Your task to perform on an android device: create a new album in the google photos Image 0: 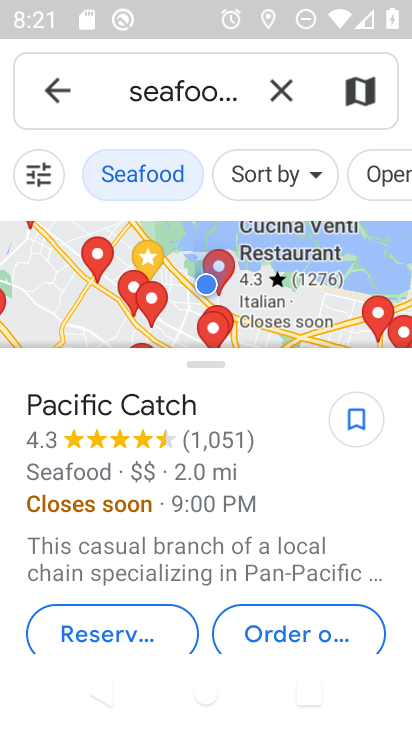
Step 0: press home button
Your task to perform on an android device: create a new album in the google photos Image 1: 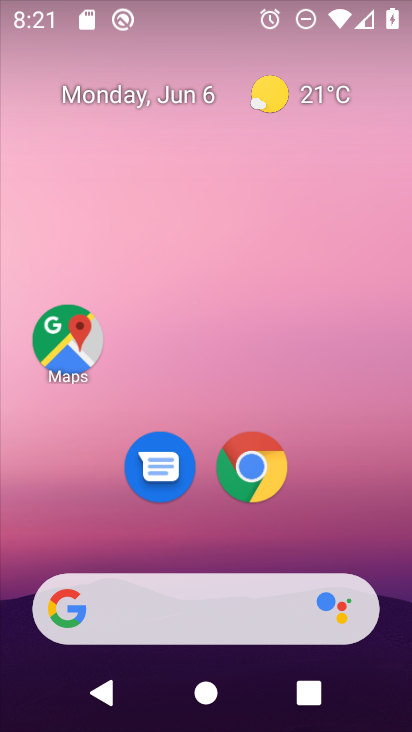
Step 1: drag from (348, 539) to (365, 181)
Your task to perform on an android device: create a new album in the google photos Image 2: 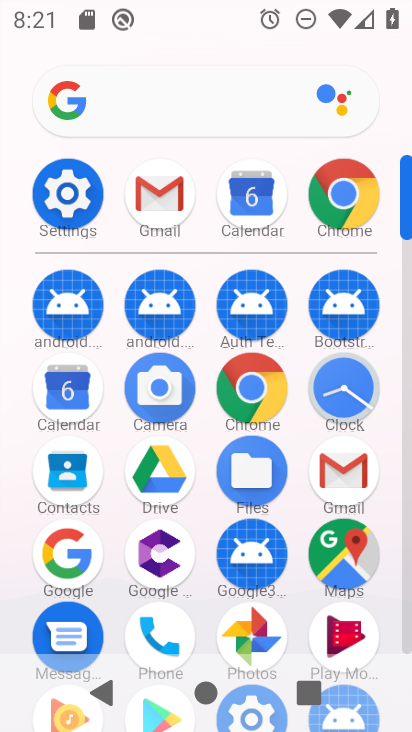
Step 2: drag from (296, 436) to (302, 279)
Your task to perform on an android device: create a new album in the google photos Image 3: 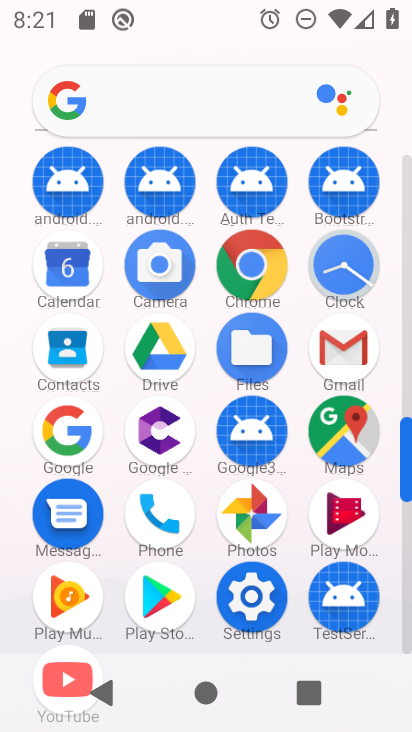
Step 3: click (268, 527)
Your task to perform on an android device: create a new album in the google photos Image 4: 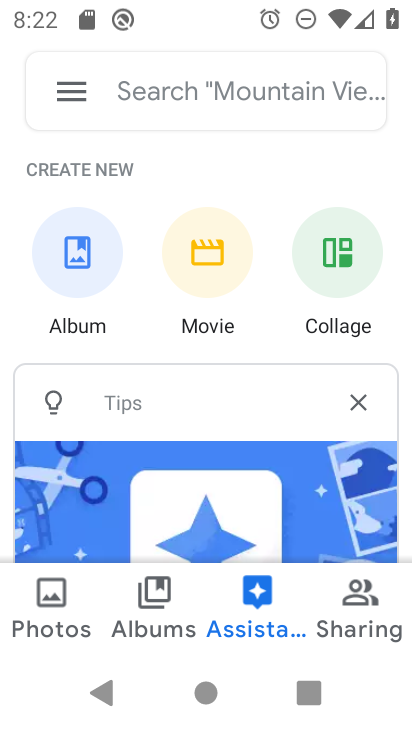
Step 4: click (154, 625)
Your task to perform on an android device: create a new album in the google photos Image 5: 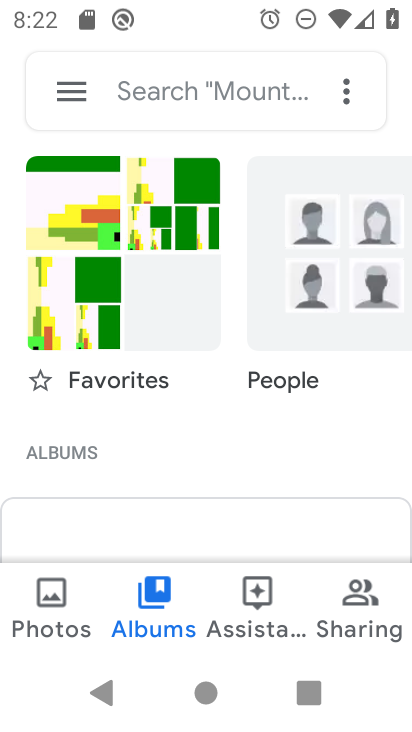
Step 5: click (350, 104)
Your task to perform on an android device: create a new album in the google photos Image 6: 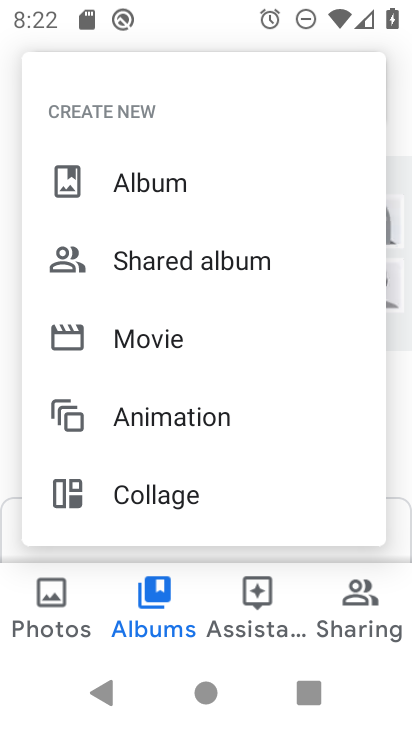
Step 6: drag from (292, 405) to (289, 259)
Your task to perform on an android device: create a new album in the google photos Image 7: 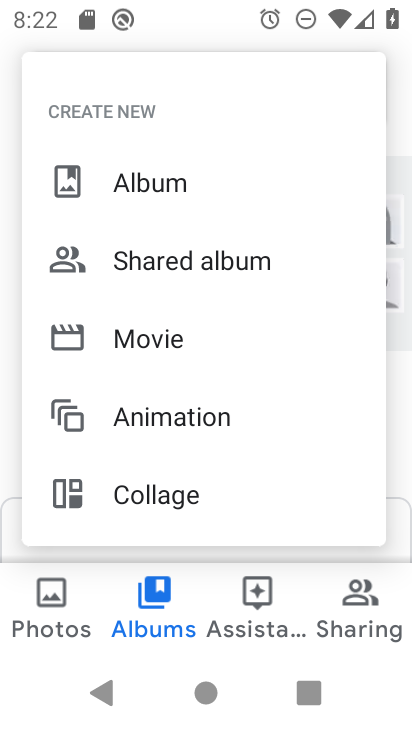
Step 7: click (177, 187)
Your task to perform on an android device: create a new album in the google photos Image 8: 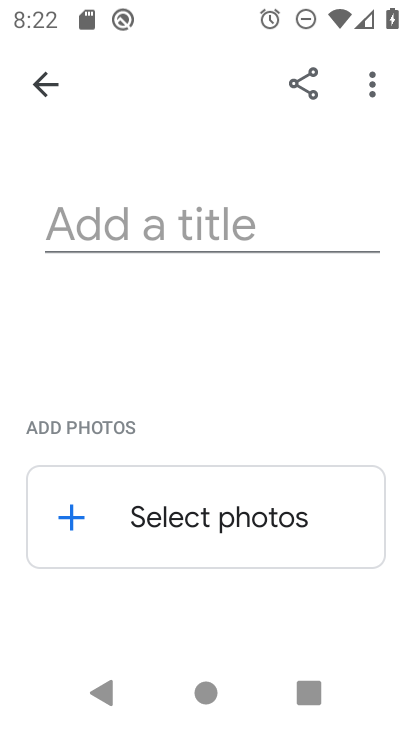
Step 8: click (142, 214)
Your task to perform on an android device: create a new album in the google photos Image 9: 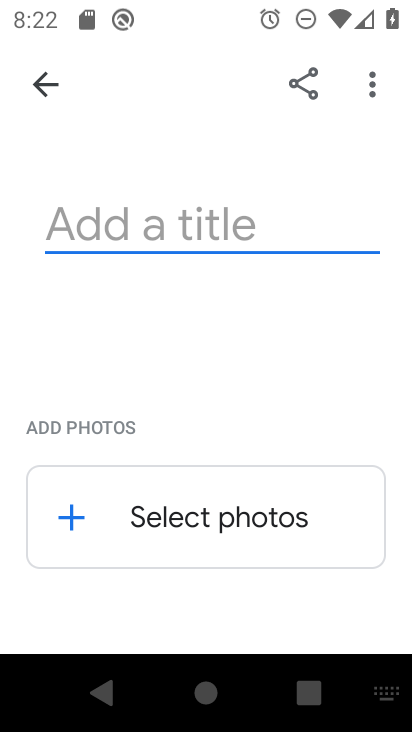
Step 9: type "fav"
Your task to perform on an android device: create a new album in the google photos Image 10: 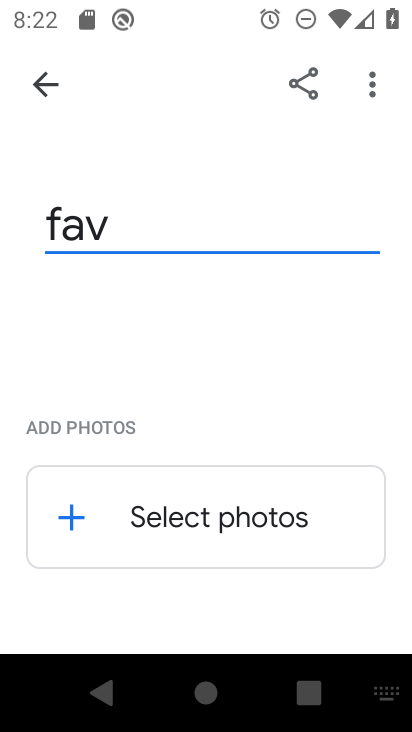
Step 10: click (85, 516)
Your task to perform on an android device: create a new album in the google photos Image 11: 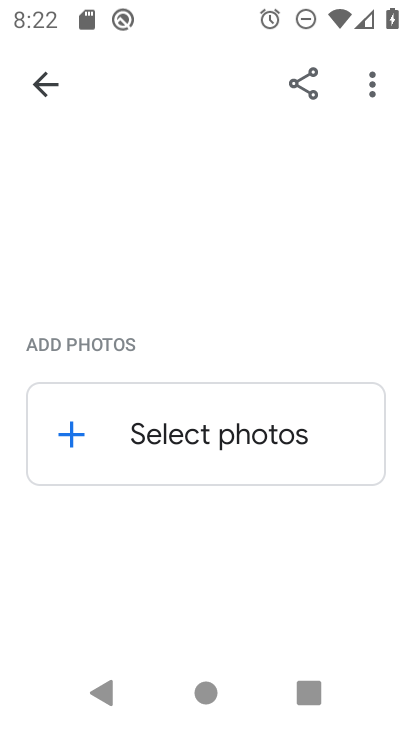
Step 11: click (76, 441)
Your task to perform on an android device: create a new album in the google photos Image 12: 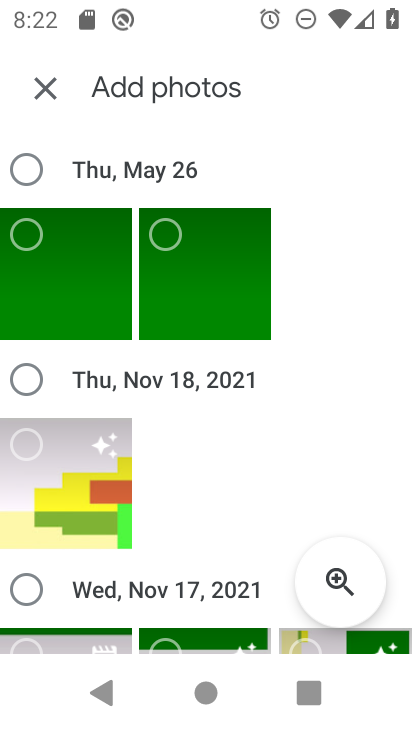
Step 12: click (69, 311)
Your task to perform on an android device: create a new album in the google photos Image 13: 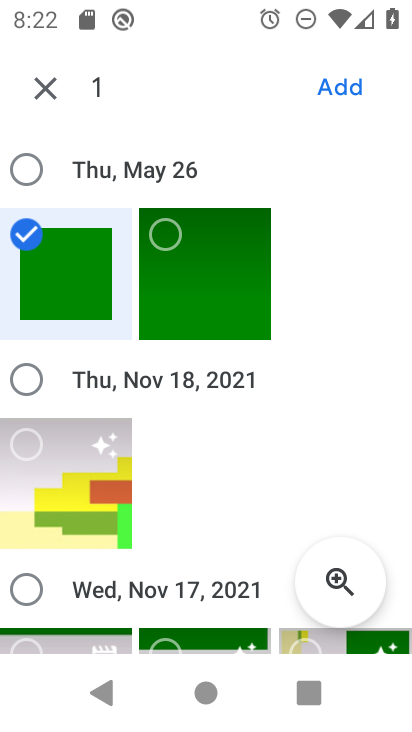
Step 13: click (185, 298)
Your task to perform on an android device: create a new album in the google photos Image 14: 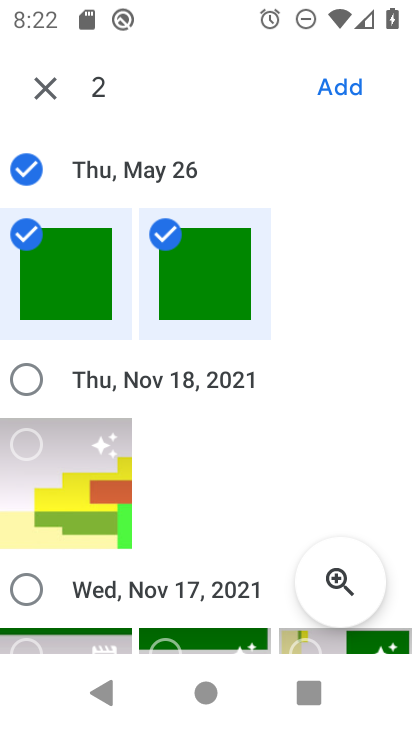
Step 14: click (339, 90)
Your task to perform on an android device: create a new album in the google photos Image 15: 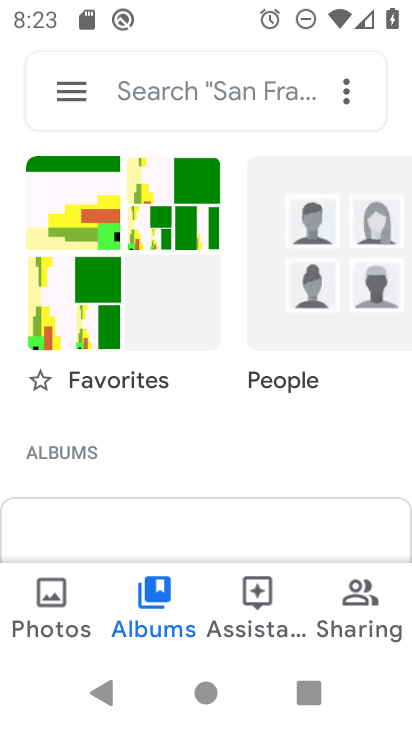
Step 15: task complete